Your task to perform on an android device: all mails in gmail Image 0: 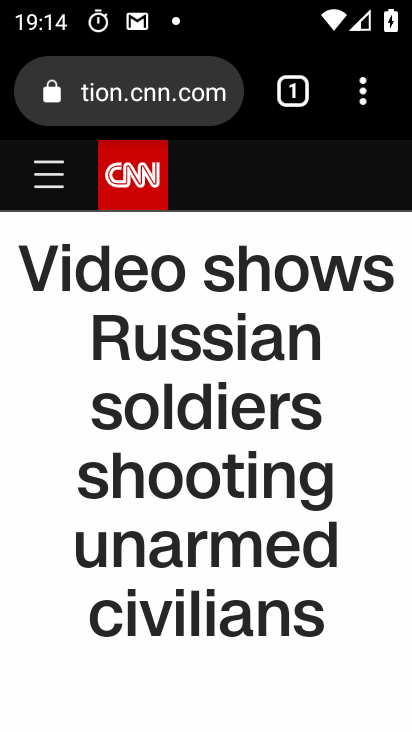
Step 0: press home button
Your task to perform on an android device: all mails in gmail Image 1: 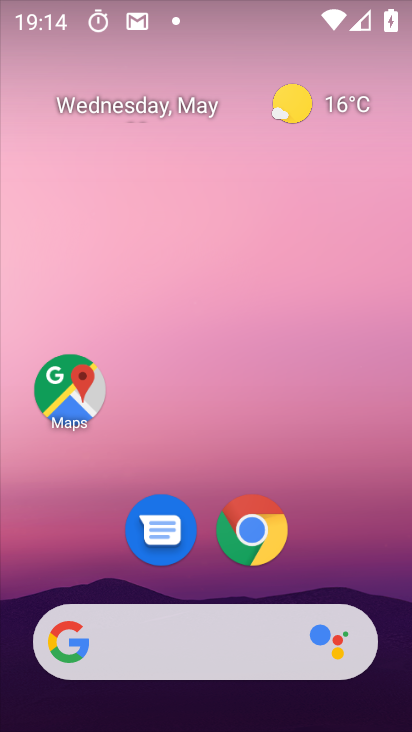
Step 1: drag from (106, 587) to (106, 280)
Your task to perform on an android device: all mails in gmail Image 2: 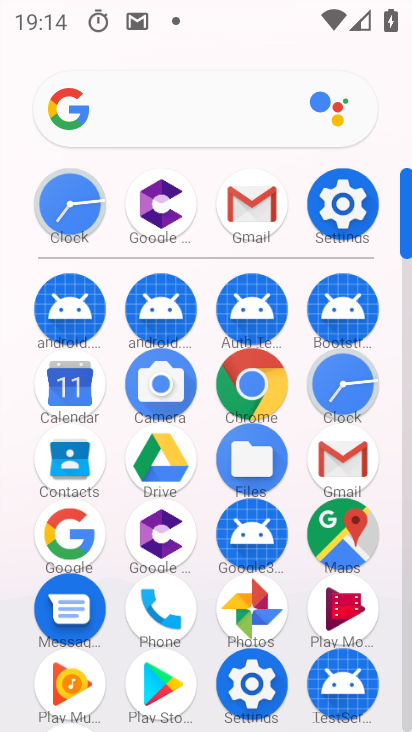
Step 2: click (260, 199)
Your task to perform on an android device: all mails in gmail Image 3: 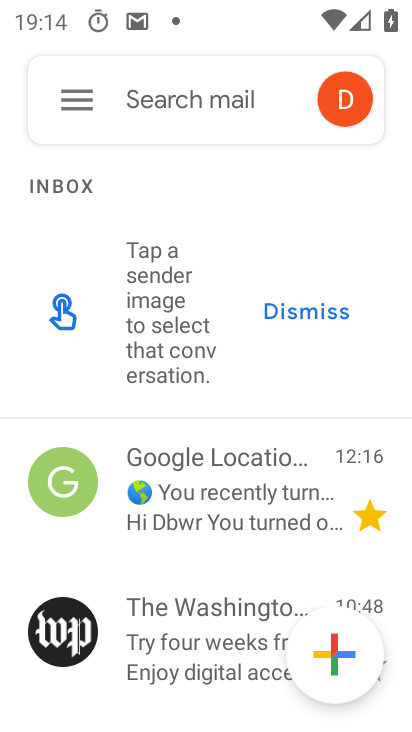
Step 3: click (79, 101)
Your task to perform on an android device: all mails in gmail Image 4: 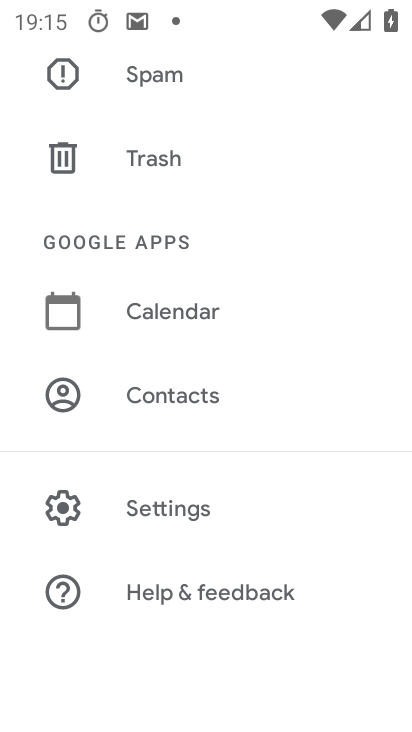
Step 4: drag from (166, 451) to (180, 266)
Your task to perform on an android device: all mails in gmail Image 5: 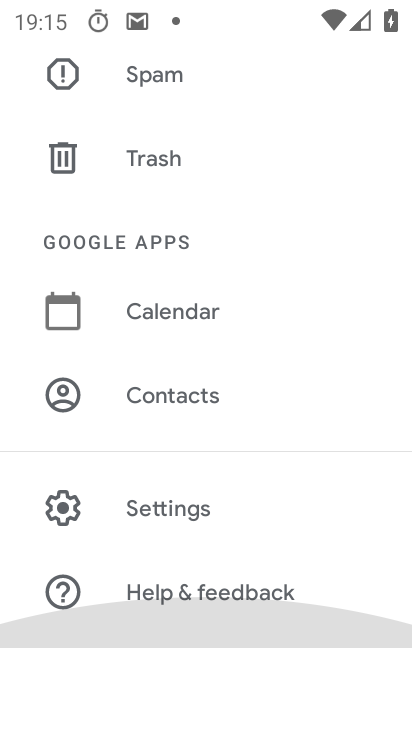
Step 5: drag from (187, 209) to (239, 612)
Your task to perform on an android device: all mails in gmail Image 6: 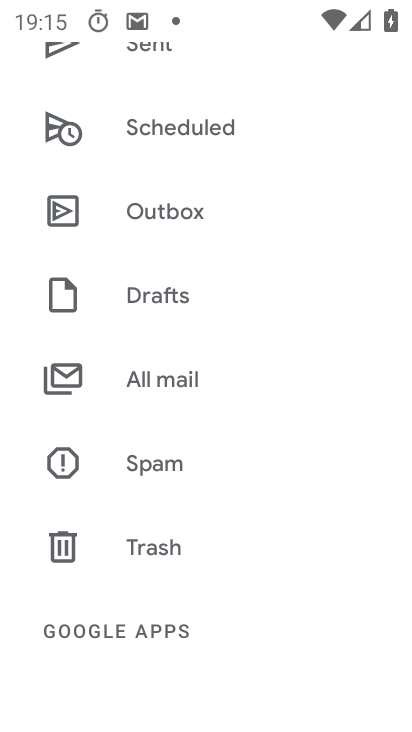
Step 6: click (198, 386)
Your task to perform on an android device: all mails in gmail Image 7: 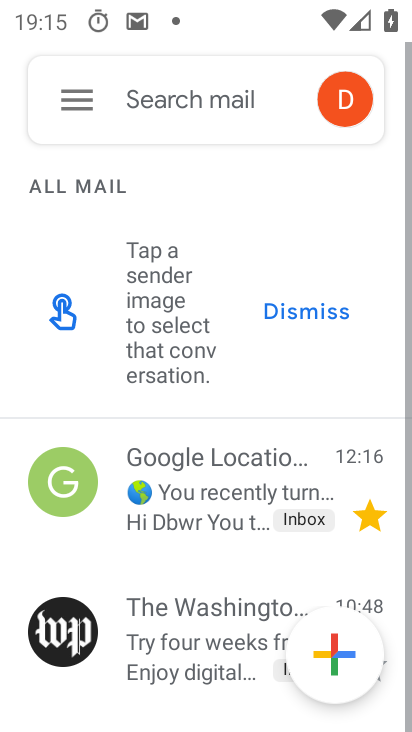
Step 7: task complete